Your task to perform on an android device: open a bookmark in the chrome app Image 0: 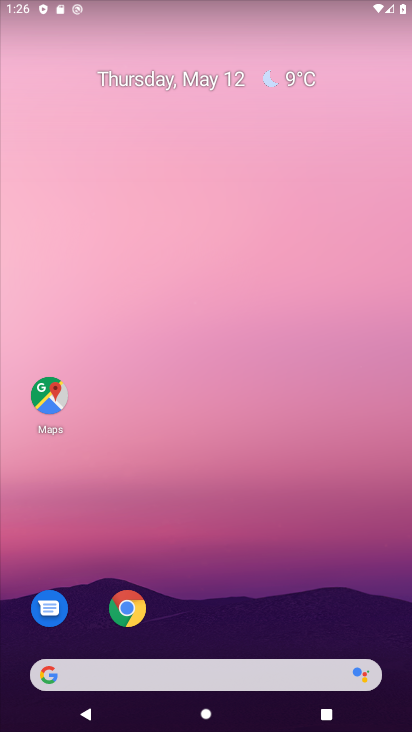
Step 0: click (140, 608)
Your task to perform on an android device: open a bookmark in the chrome app Image 1: 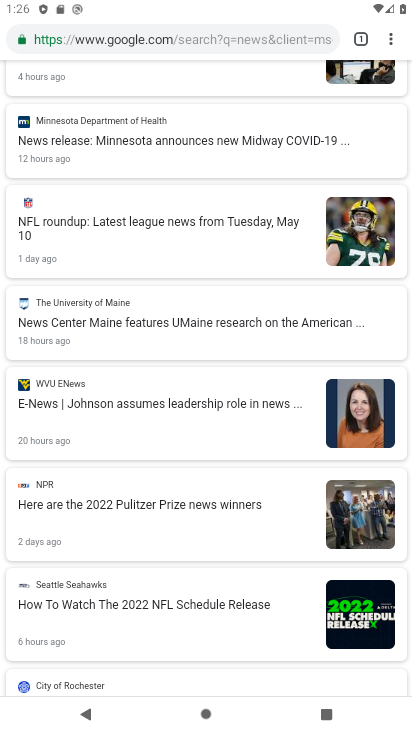
Step 1: click (394, 38)
Your task to perform on an android device: open a bookmark in the chrome app Image 2: 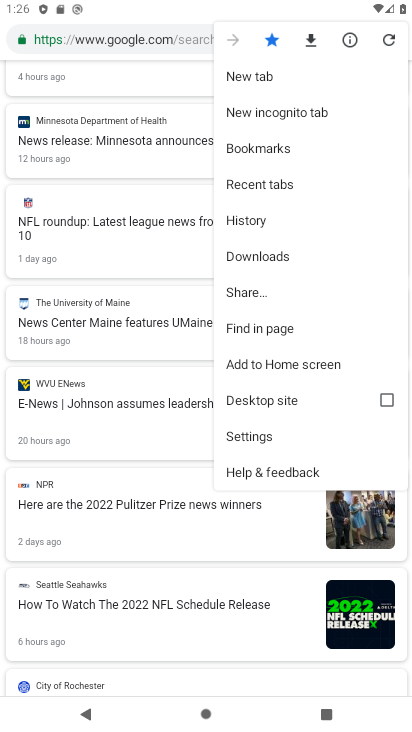
Step 2: click (244, 149)
Your task to perform on an android device: open a bookmark in the chrome app Image 3: 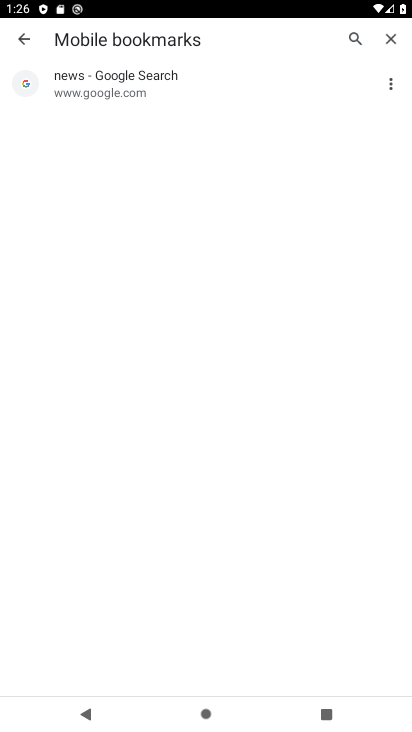
Step 3: task complete